Your task to perform on an android device: Open accessibility settings Image 0: 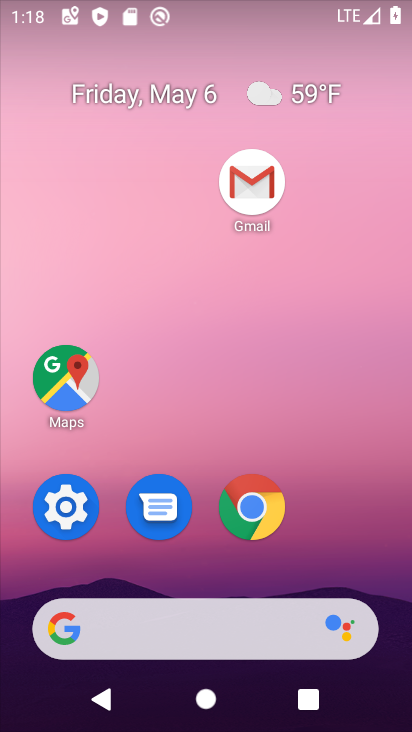
Step 0: click (74, 503)
Your task to perform on an android device: Open accessibility settings Image 1: 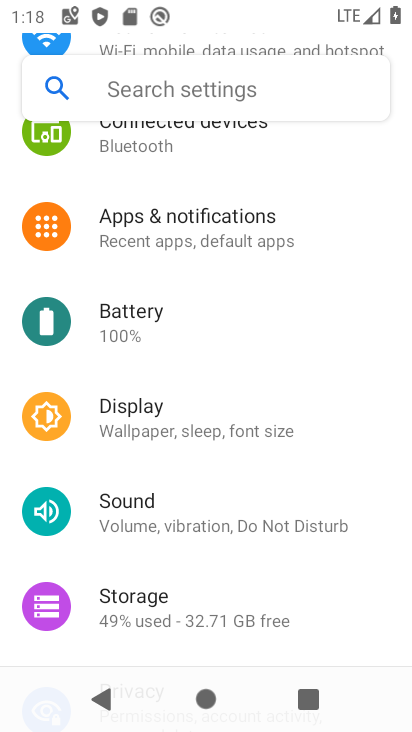
Step 1: drag from (231, 457) to (233, 194)
Your task to perform on an android device: Open accessibility settings Image 2: 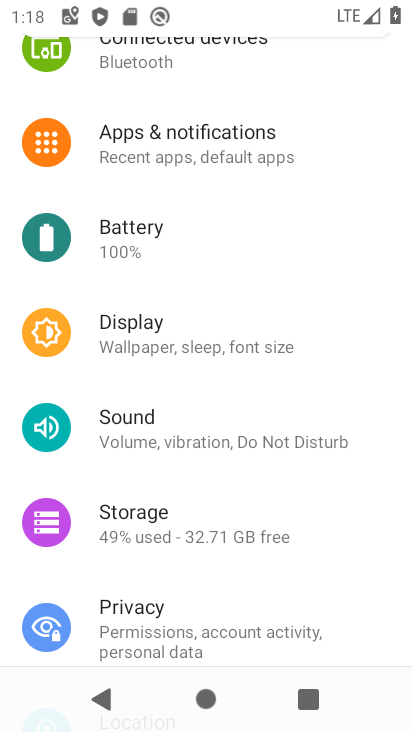
Step 2: drag from (178, 542) to (179, 313)
Your task to perform on an android device: Open accessibility settings Image 3: 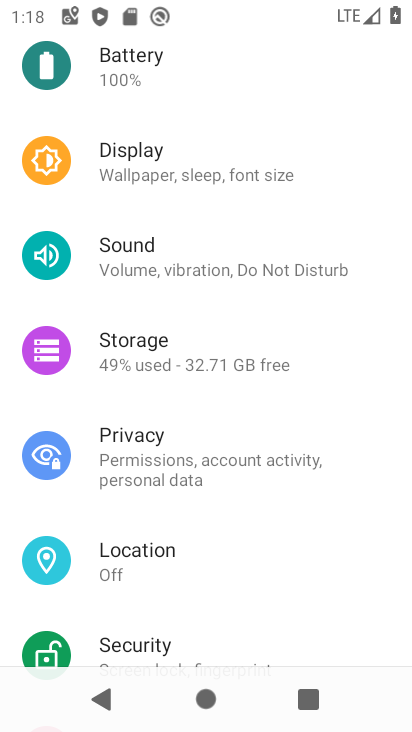
Step 3: drag from (171, 577) to (155, 325)
Your task to perform on an android device: Open accessibility settings Image 4: 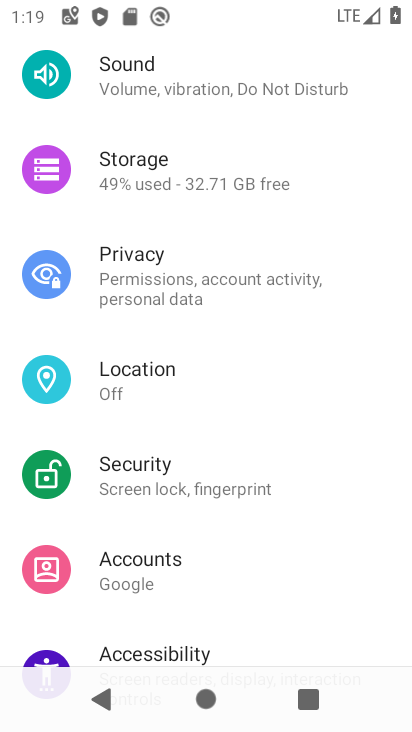
Step 4: drag from (215, 532) to (177, 231)
Your task to perform on an android device: Open accessibility settings Image 5: 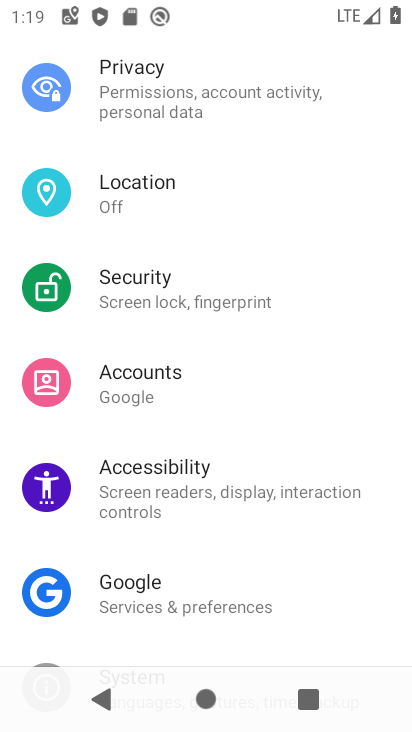
Step 5: click (145, 469)
Your task to perform on an android device: Open accessibility settings Image 6: 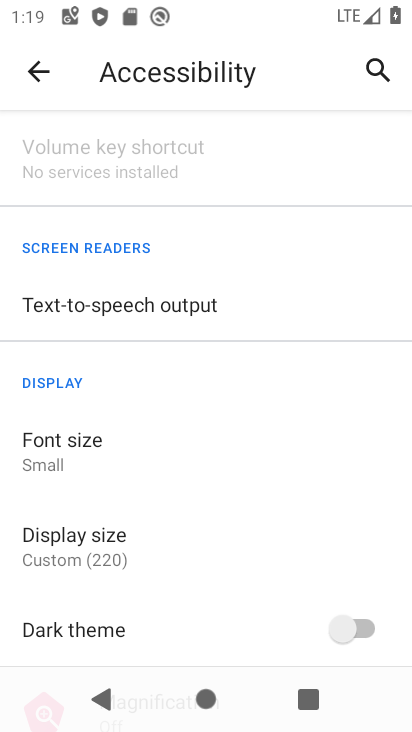
Step 6: task complete